Your task to perform on an android device: Open settings Image 0: 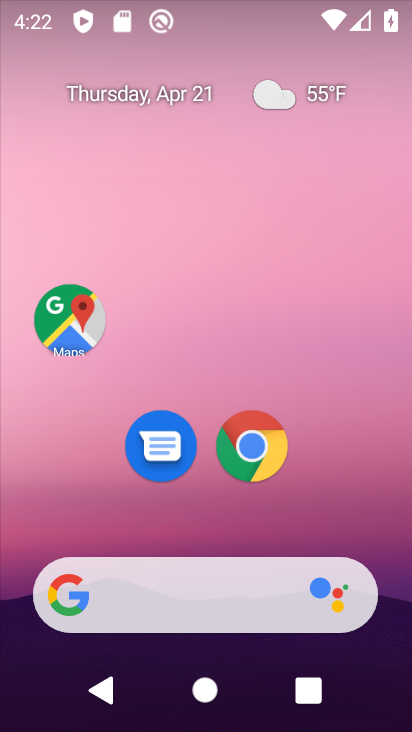
Step 0: drag from (254, 304) to (300, 27)
Your task to perform on an android device: Open settings Image 1: 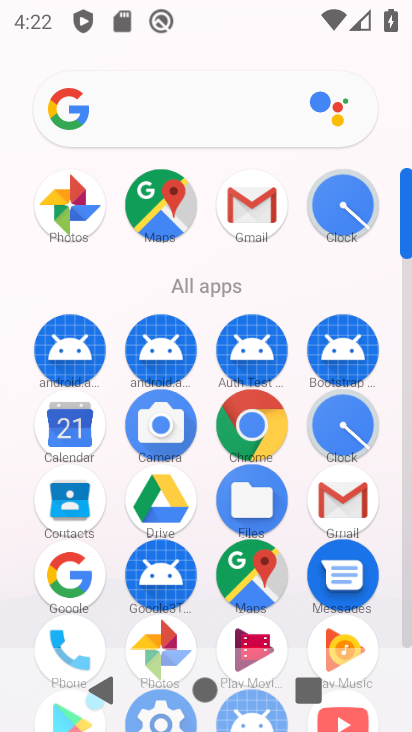
Step 1: drag from (112, 612) to (169, 144)
Your task to perform on an android device: Open settings Image 2: 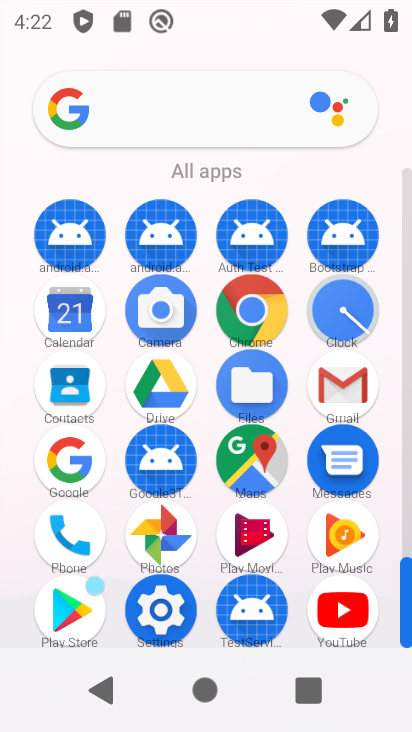
Step 2: click (174, 611)
Your task to perform on an android device: Open settings Image 3: 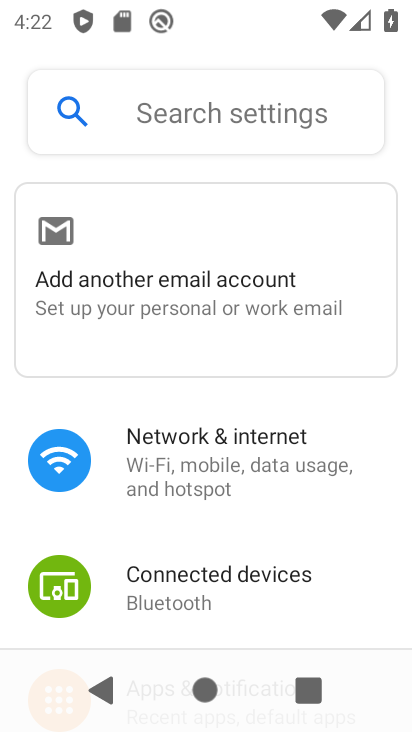
Step 3: task complete